Your task to perform on an android device: Do I have any events this weekend? Image 0: 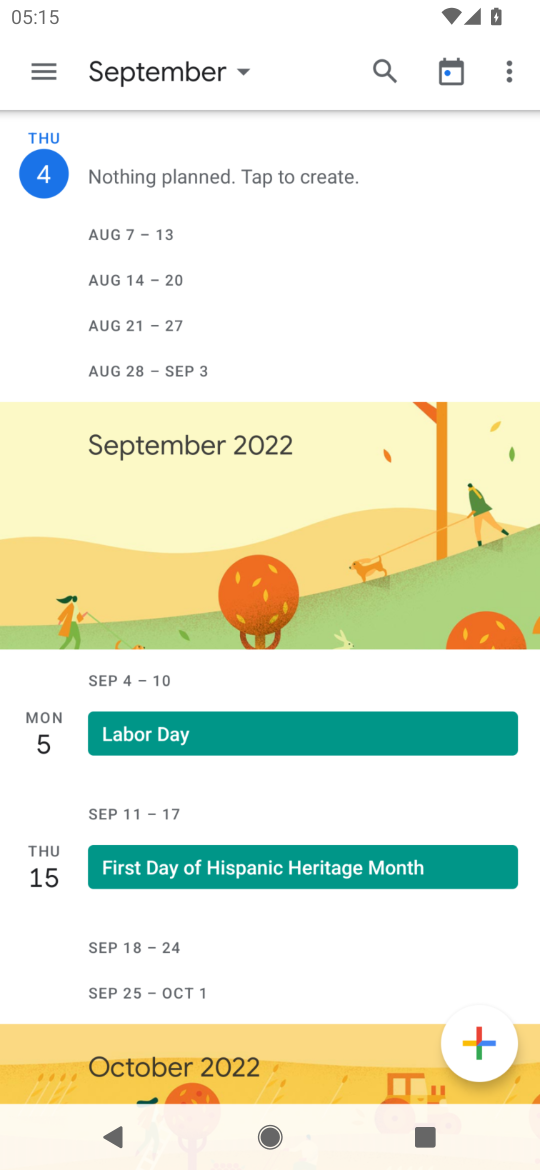
Step 0: press home button
Your task to perform on an android device: Do I have any events this weekend? Image 1: 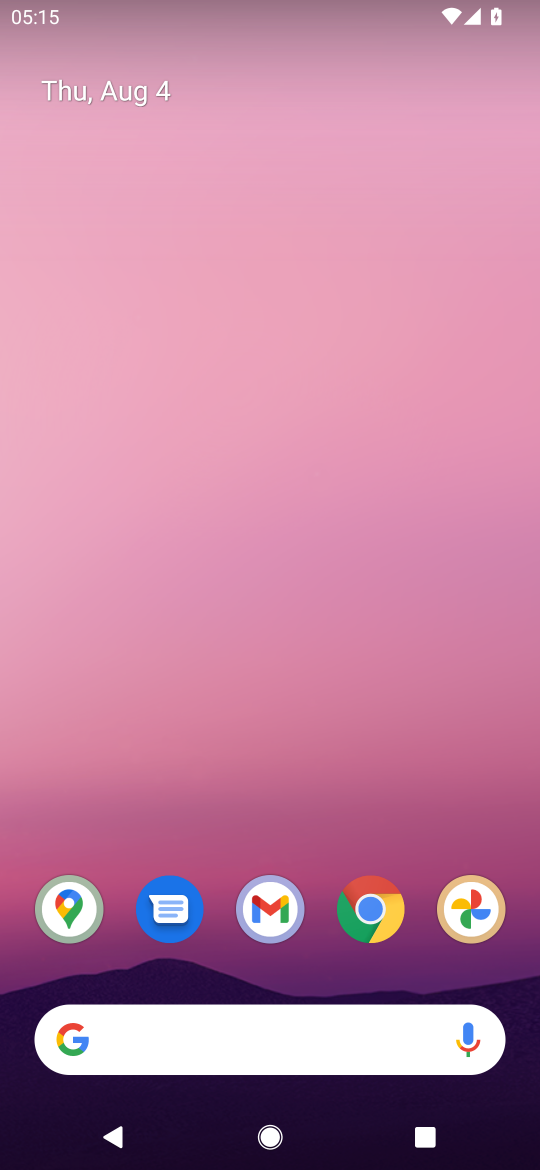
Step 1: press home button
Your task to perform on an android device: Do I have any events this weekend? Image 2: 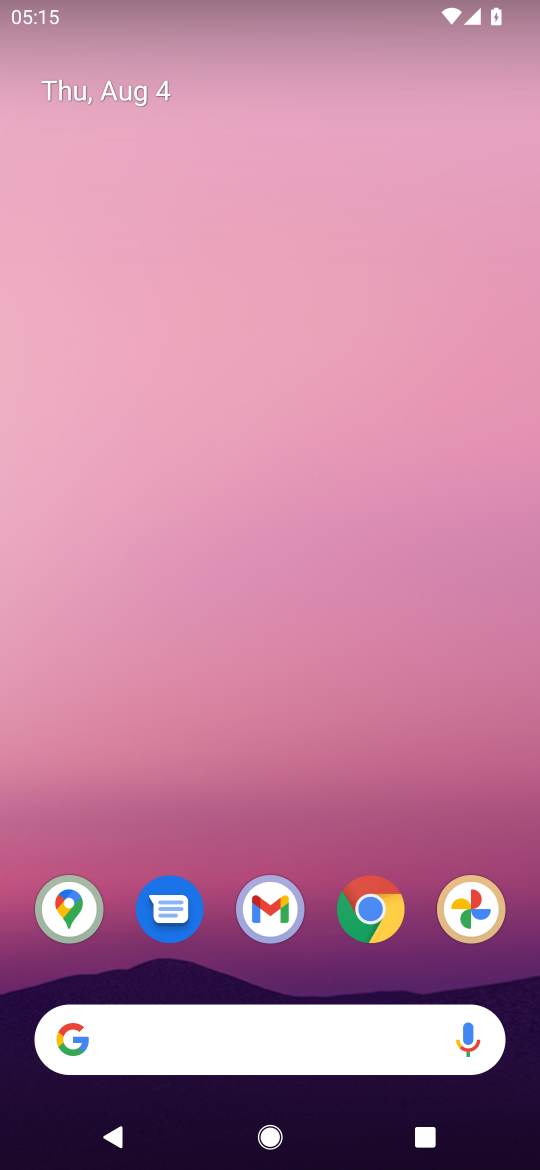
Step 2: drag from (345, 769) to (370, 210)
Your task to perform on an android device: Do I have any events this weekend? Image 3: 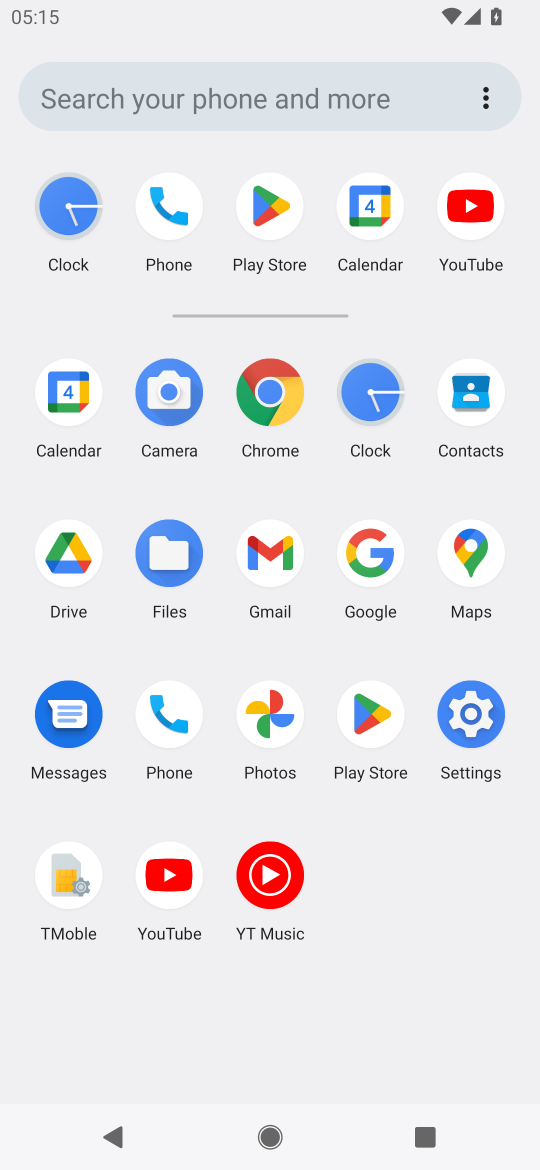
Step 3: click (70, 406)
Your task to perform on an android device: Do I have any events this weekend? Image 4: 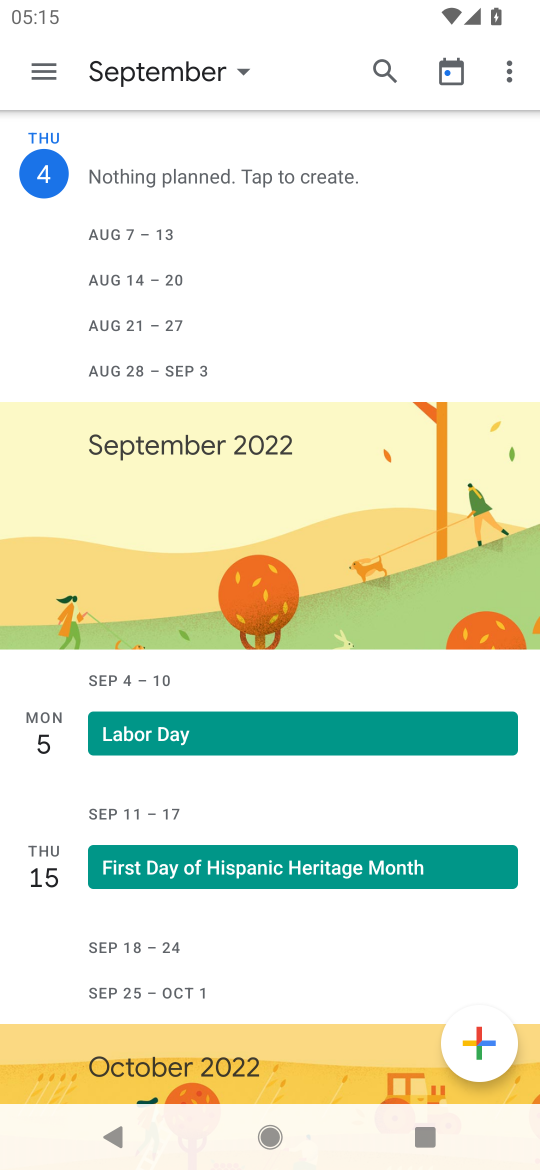
Step 4: click (57, 77)
Your task to perform on an android device: Do I have any events this weekend? Image 5: 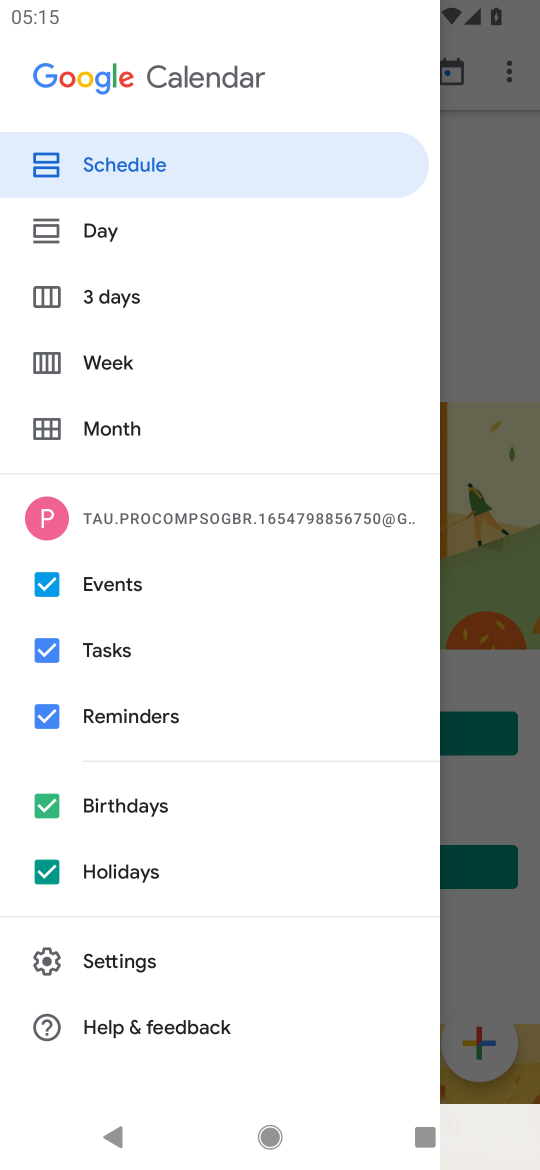
Step 5: click (112, 371)
Your task to perform on an android device: Do I have any events this weekend? Image 6: 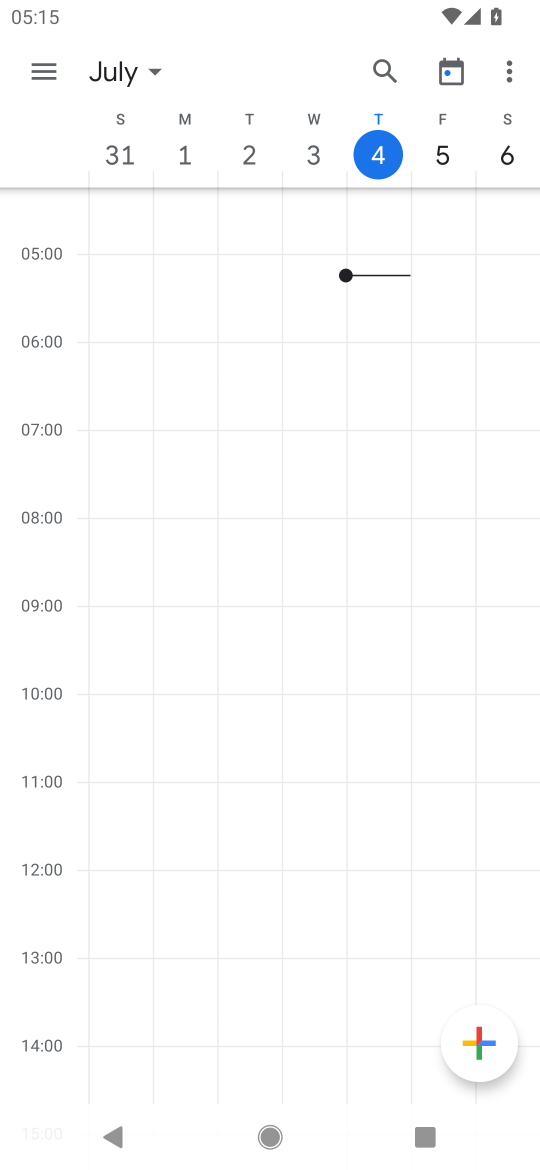
Step 6: task complete